Your task to perform on an android device: create a new album in the google photos Image 0: 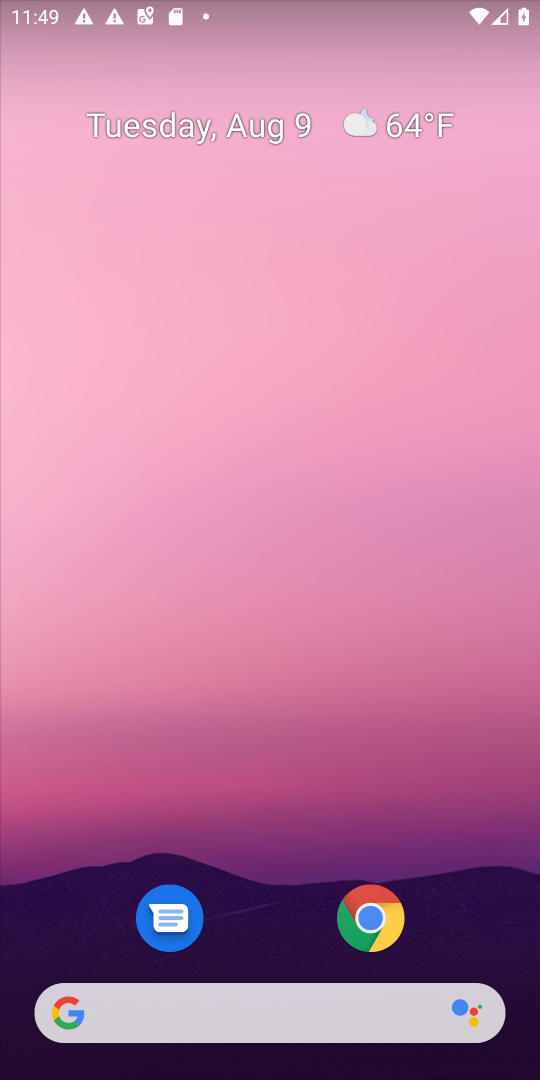
Step 0: drag from (246, 929) to (330, 221)
Your task to perform on an android device: create a new album in the google photos Image 1: 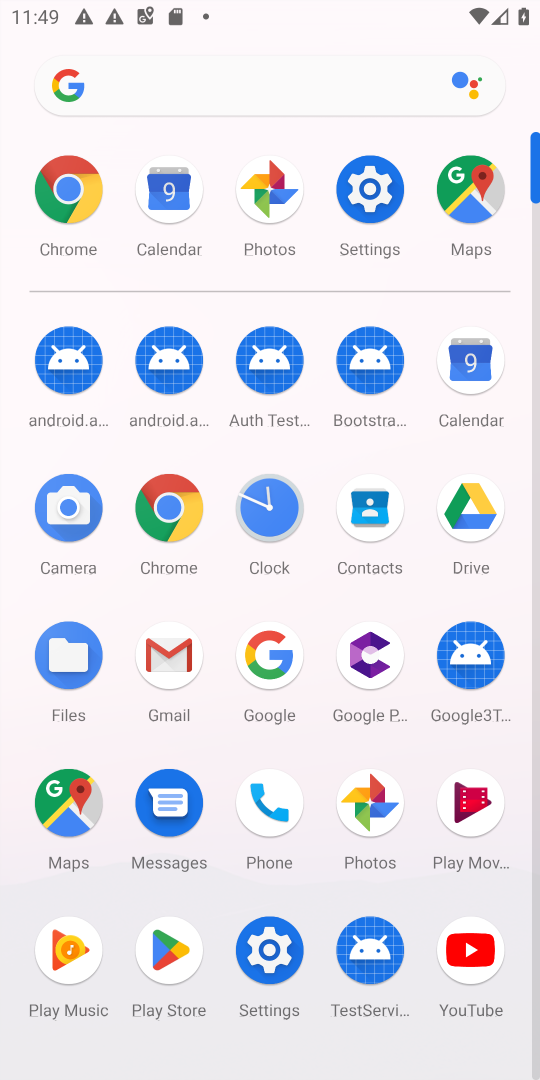
Step 1: click (376, 808)
Your task to perform on an android device: create a new album in the google photos Image 2: 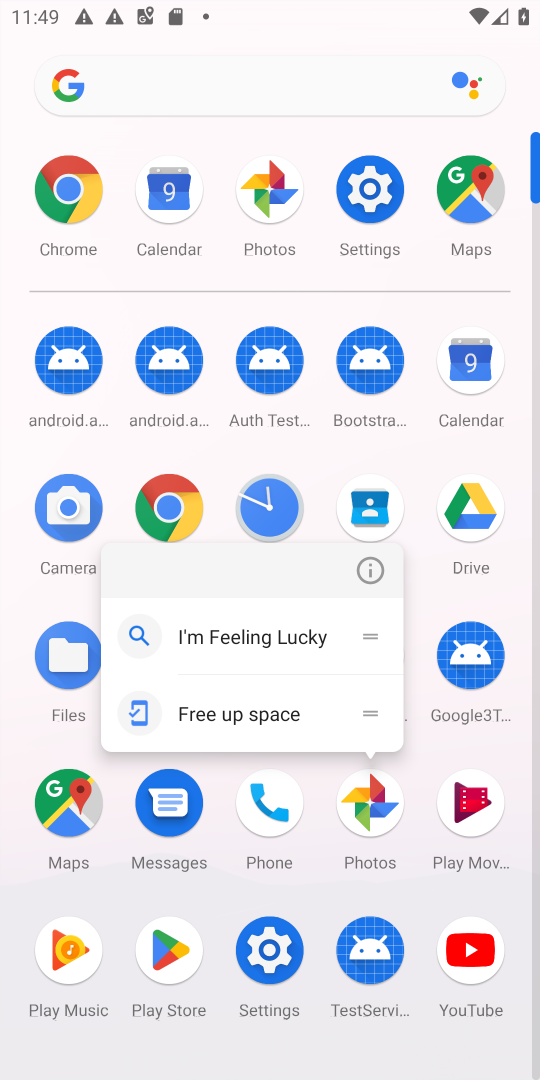
Step 2: click (376, 802)
Your task to perform on an android device: create a new album in the google photos Image 3: 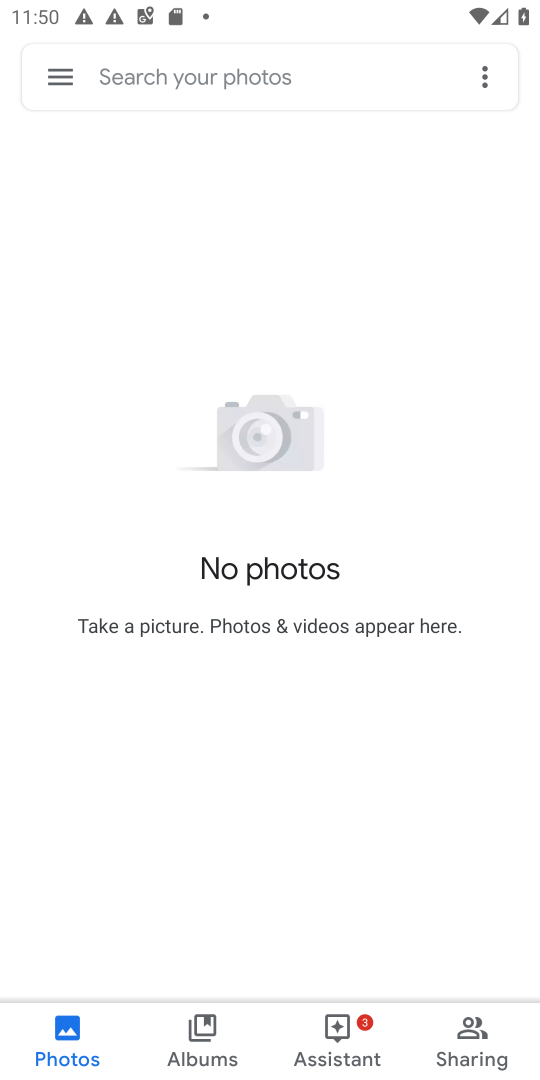
Step 3: click (203, 1030)
Your task to perform on an android device: create a new album in the google photos Image 4: 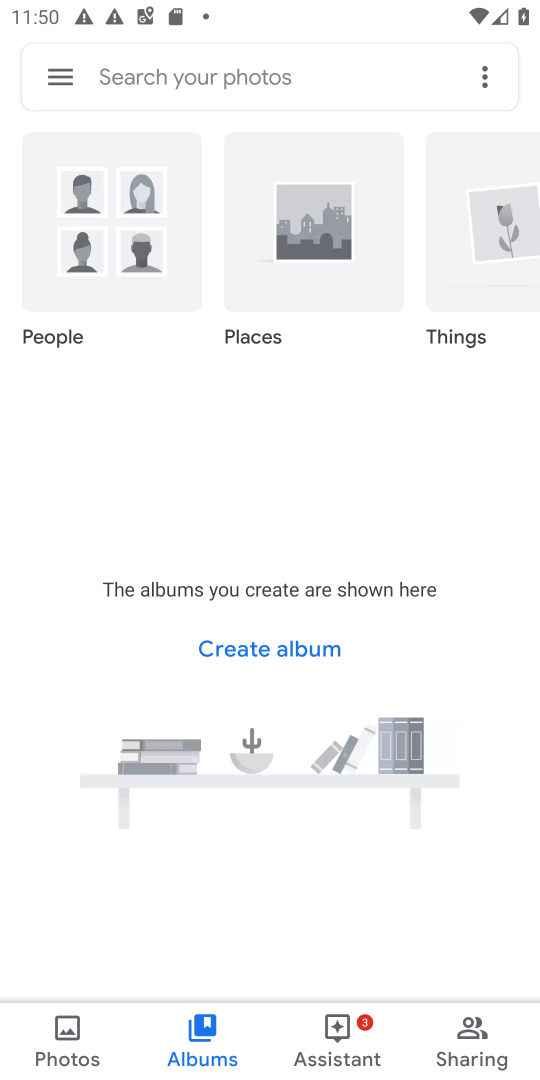
Step 4: click (254, 648)
Your task to perform on an android device: create a new album in the google photos Image 5: 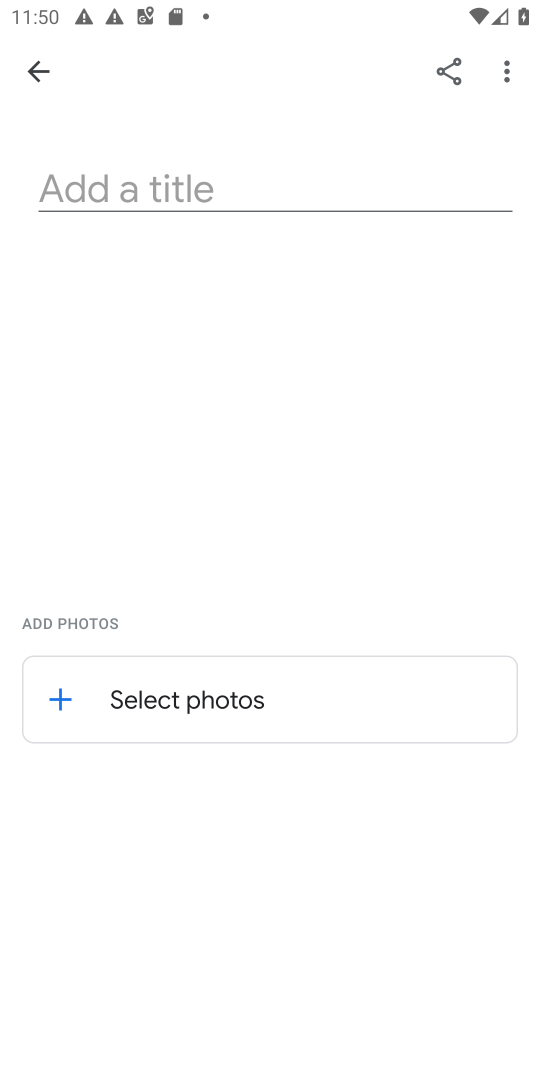
Step 5: click (323, 179)
Your task to perform on an android device: create a new album in the google photos Image 6: 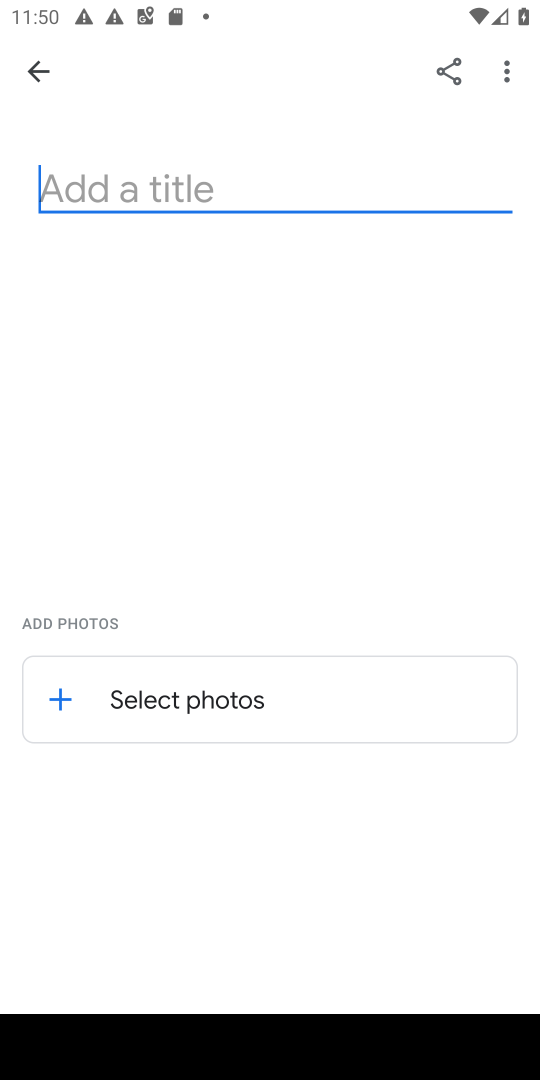
Step 6: type "kokoko"
Your task to perform on an android device: create a new album in the google photos Image 7: 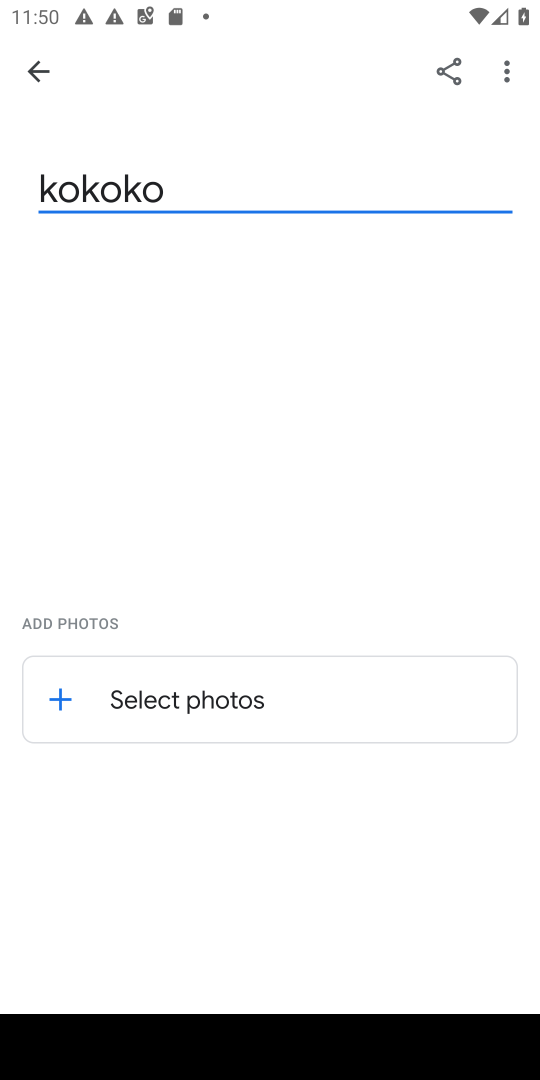
Step 7: press enter
Your task to perform on an android device: create a new album in the google photos Image 8: 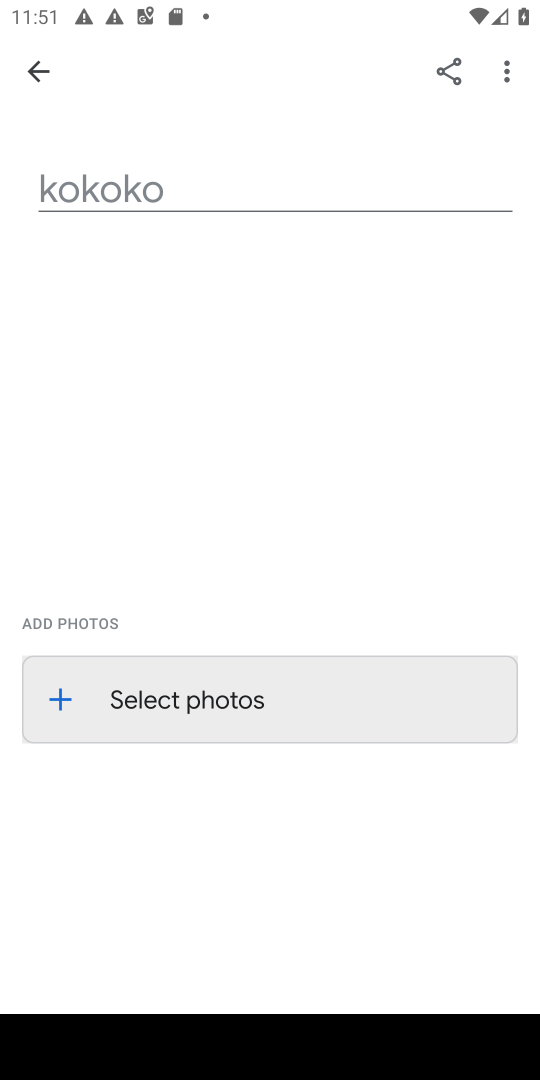
Step 8: task complete